Your task to perform on an android device: What is the recent news? Image 0: 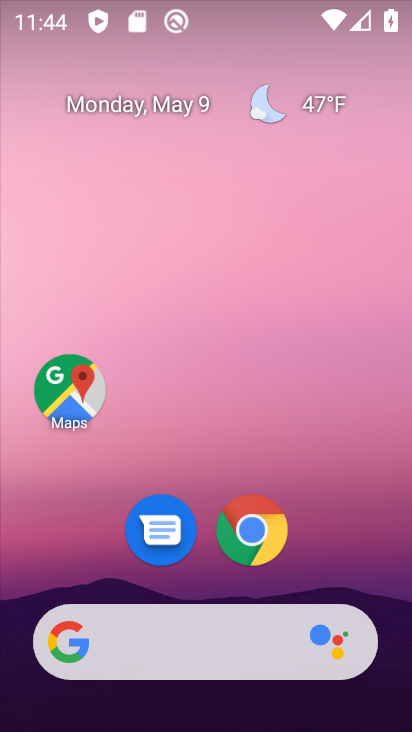
Step 0: drag from (357, 513) to (349, 187)
Your task to perform on an android device: What is the recent news? Image 1: 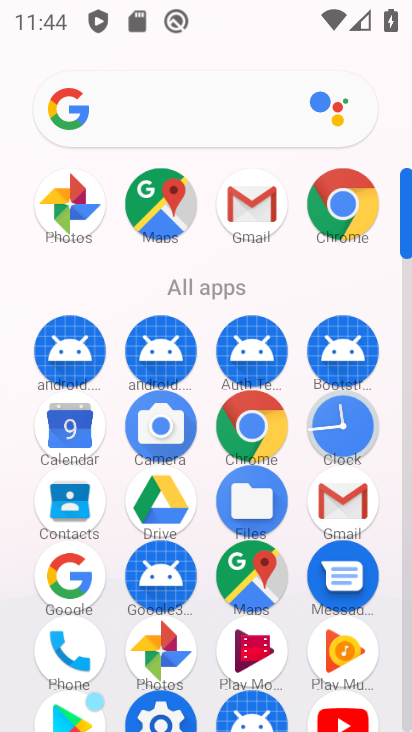
Step 1: click (265, 417)
Your task to perform on an android device: What is the recent news? Image 2: 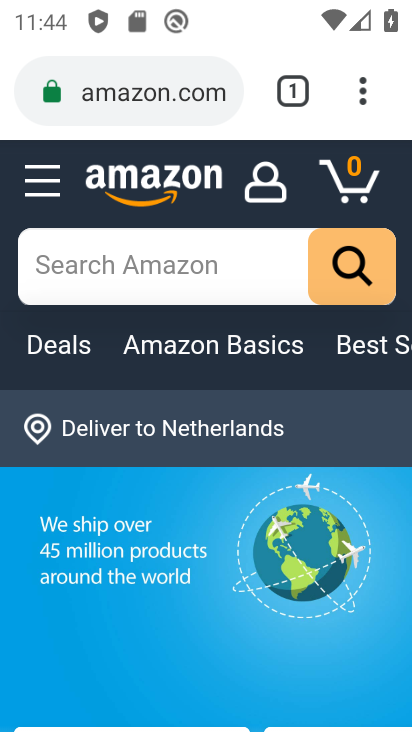
Step 2: click (185, 106)
Your task to perform on an android device: What is the recent news? Image 3: 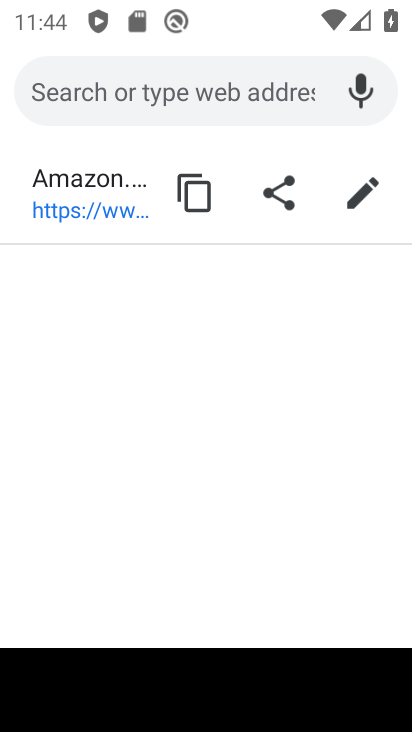
Step 3: type "recent news"
Your task to perform on an android device: What is the recent news? Image 4: 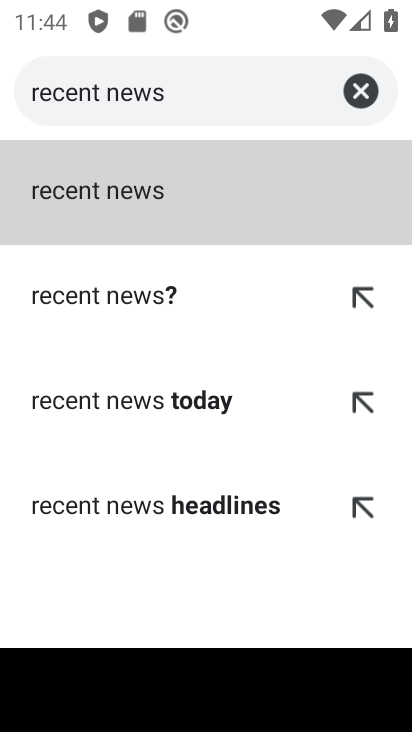
Step 4: click (149, 215)
Your task to perform on an android device: What is the recent news? Image 5: 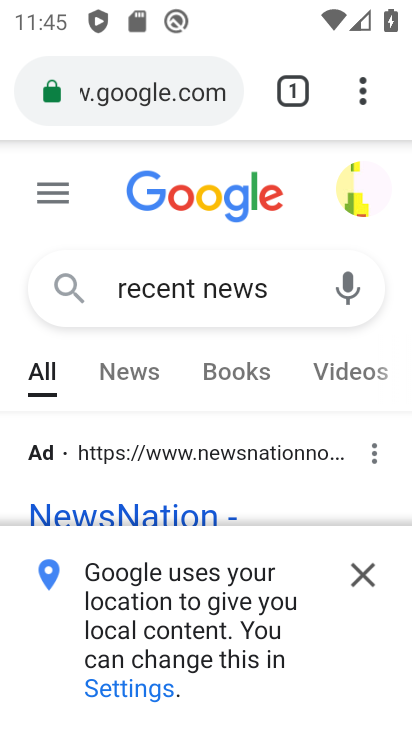
Step 5: click (362, 578)
Your task to perform on an android device: What is the recent news? Image 6: 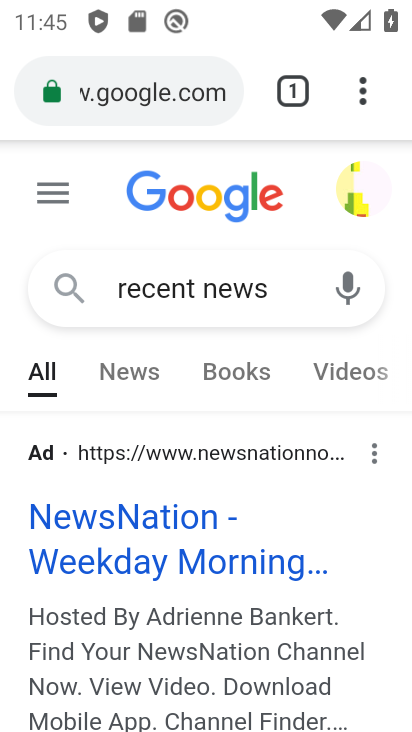
Step 6: task complete